Your task to perform on an android device: check data usage Image 0: 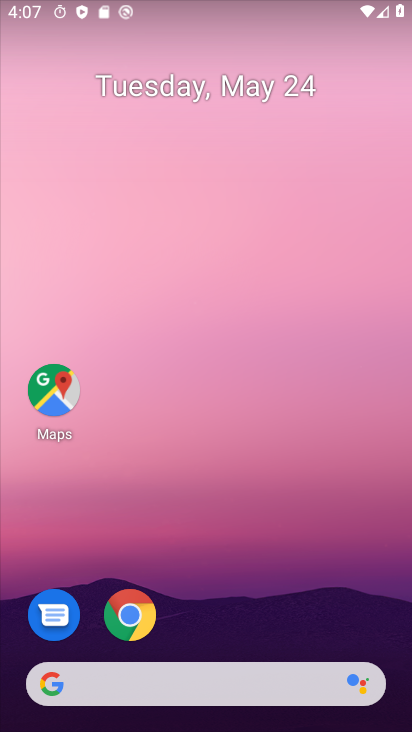
Step 0: drag from (220, 555) to (289, 50)
Your task to perform on an android device: check data usage Image 1: 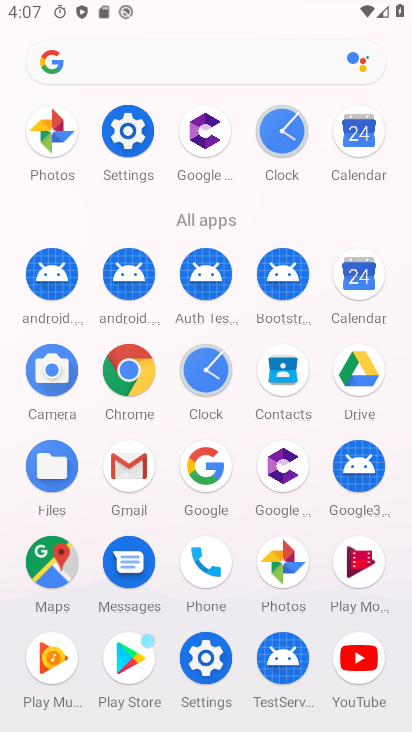
Step 1: click (127, 123)
Your task to perform on an android device: check data usage Image 2: 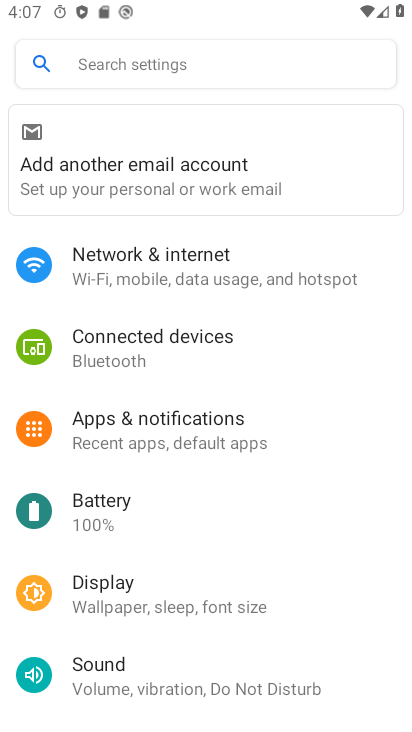
Step 2: click (206, 267)
Your task to perform on an android device: check data usage Image 3: 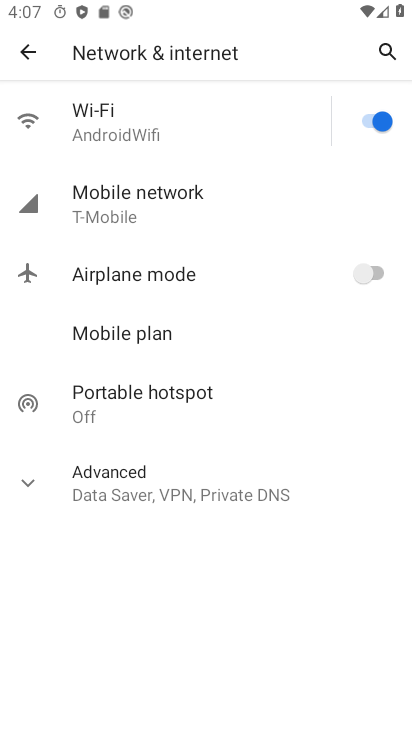
Step 3: click (151, 189)
Your task to perform on an android device: check data usage Image 4: 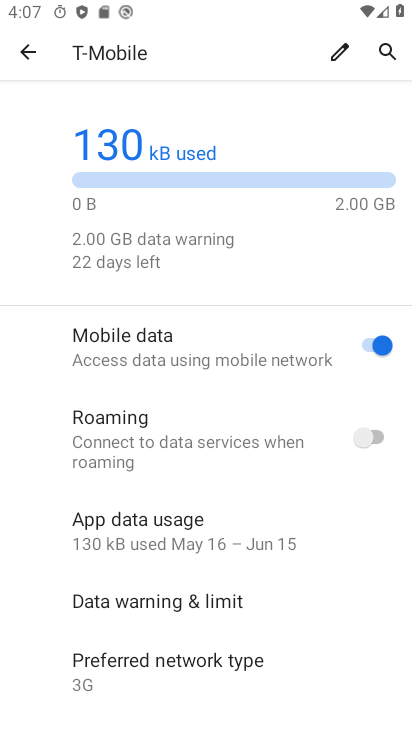
Step 4: click (190, 526)
Your task to perform on an android device: check data usage Image 5: 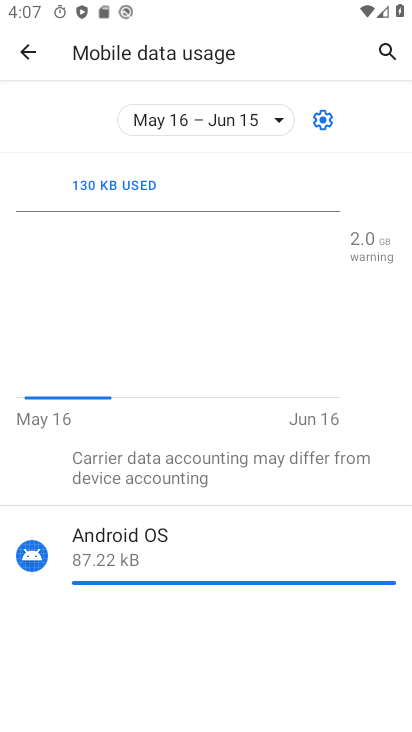
Step 5: task complete